Your task to perform on an android device: Go to Google maps Image 0: 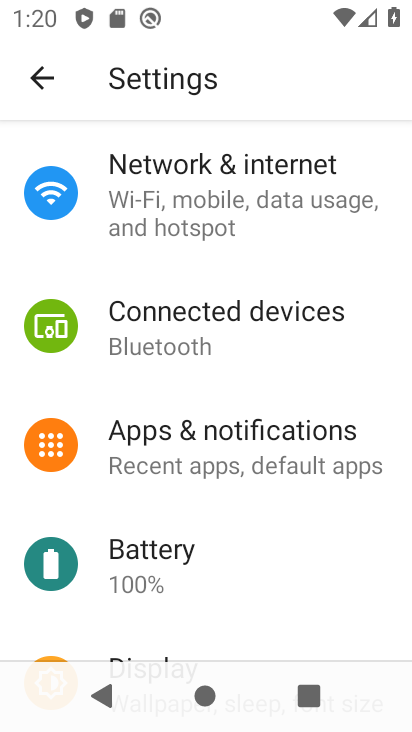
Step 0: press back button
Your task to perform on an android device: Go to Google maps Image 1: 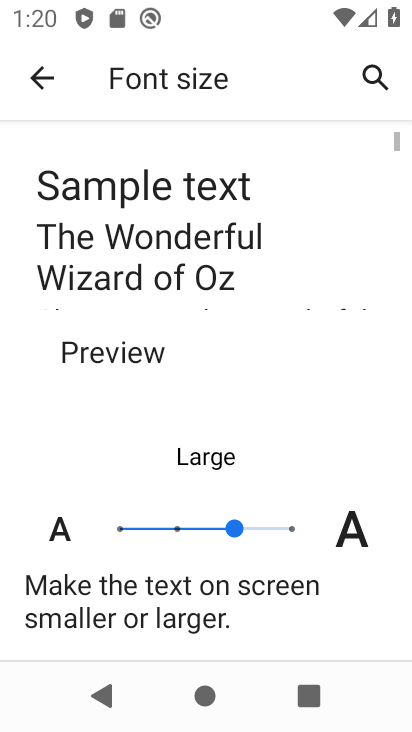
Step 1: press back button
Your task to perform on an android device: Go to Google maps Image 2: 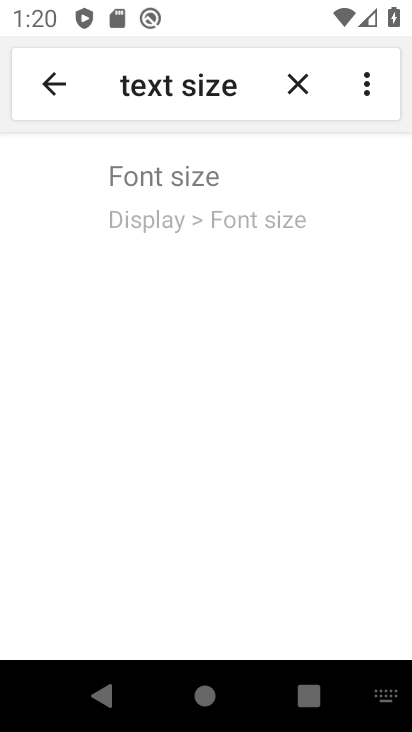
Step 2: press back button
Your task to perform on an android device: Go to Google maps Image 3: 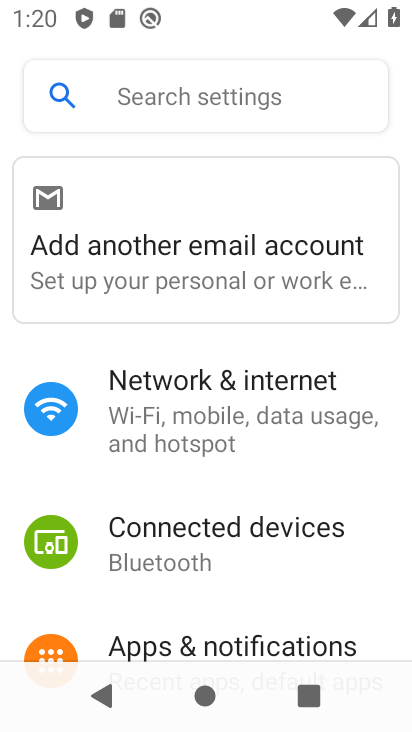
Step 3: press back button
Your task to perform on an android device: Go to Google maps Image 4: 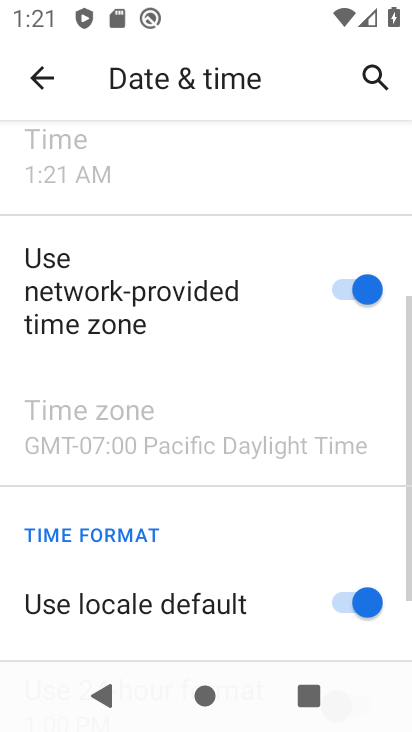
Step 4: press back button
Your task to perform on an android device: Go to Google maps Image 5: 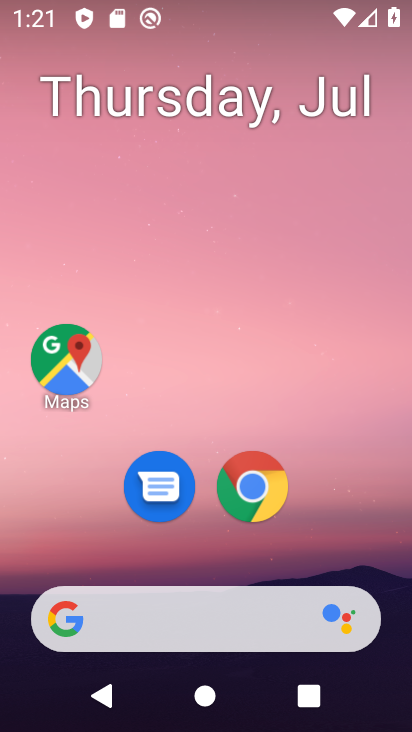
Step 5: click (77, 359)
Your task to perform on an android device: Go to Google maps Image 6: 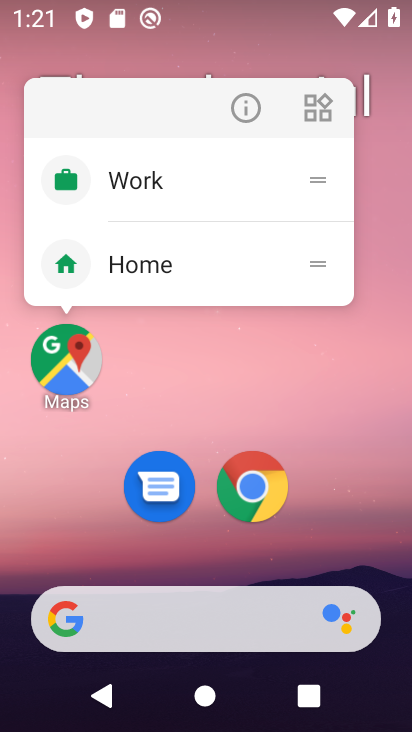
Step 6: click (55, 359)
Your task to perform on an android device: Go to Google maps Image 7: 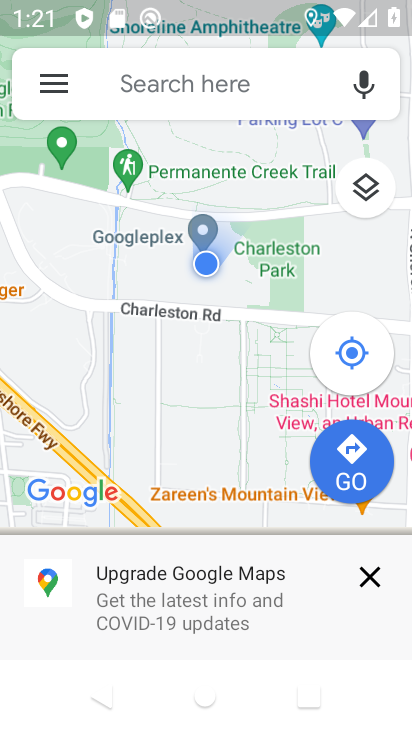
Step 7: task complete